Your task to perform on an android device: turn on improve location accuracy Image 0: 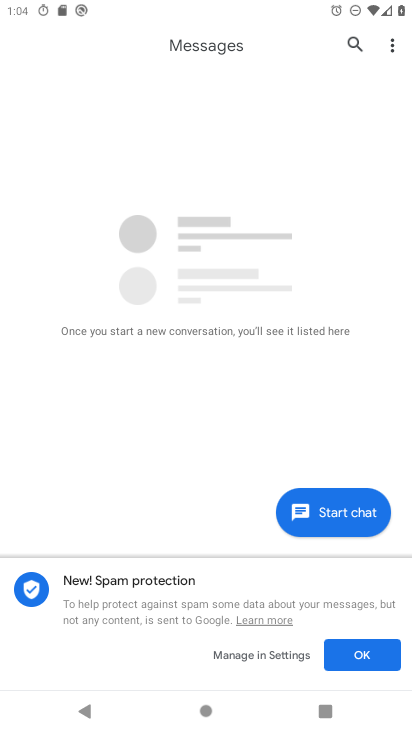
Step 0: press home button
Your task to perform on an android device: turn on improve location accuracy Image 1: 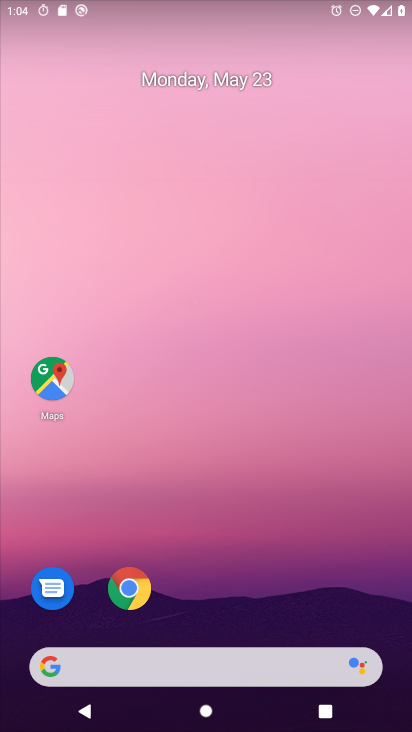
Step 1: drag from (277, 702) to (239, 211)
Your task to perform on an android device: turn on improve location accuracy Image 2: 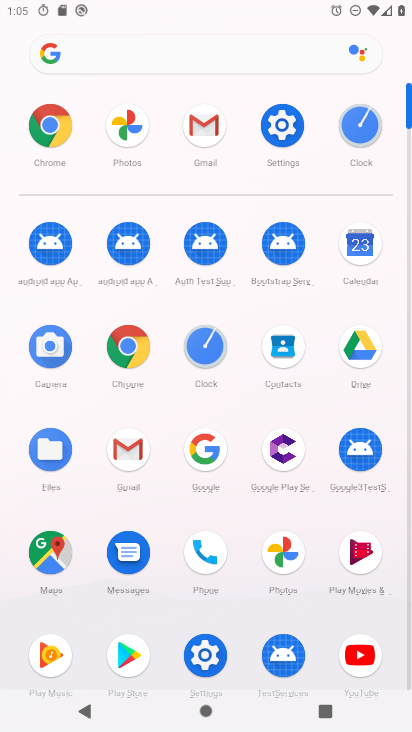
Step 2: click (278, 121)
Your task to perform on an android device: turn on improve location accuracy Image 3: 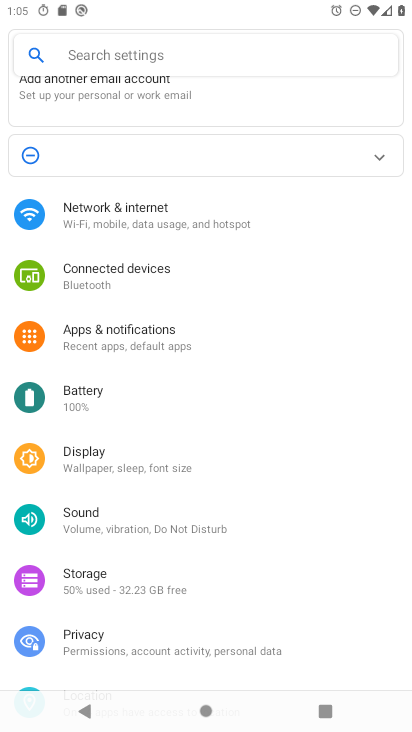
Step 3: click (136, 63)
Your task to perform on an android device: turn on improve location accuracy Image 4: 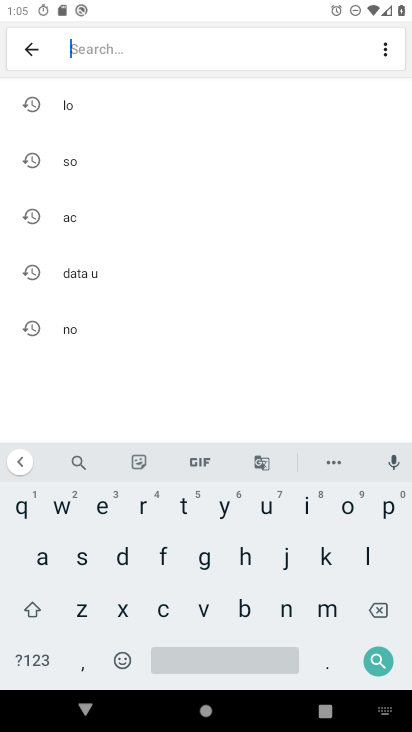
Step 4: click (363, 561)
Your task to perform on an android device: turn on improve location accuracy Image 5: 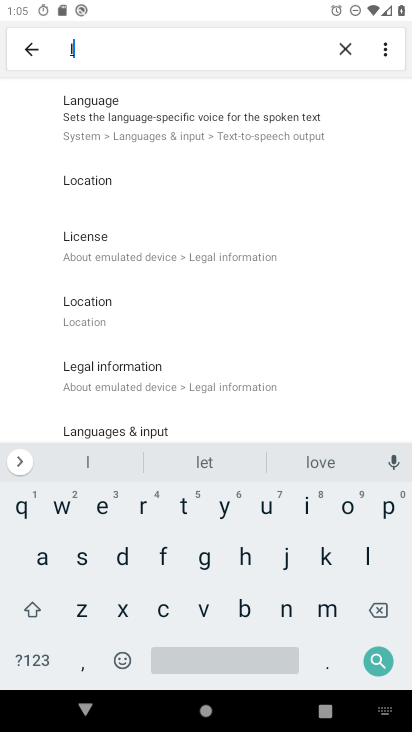
Step 5: click (121, 320)
Your task to perform on an android device: turn on improve location accuracy Image 6: 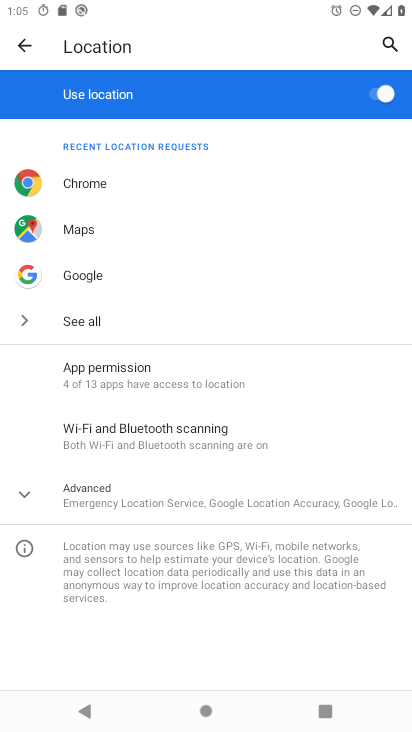
Step 6: click (32, 499)
Your task to perform on an android device: turn on improve location accuracy Image 7: 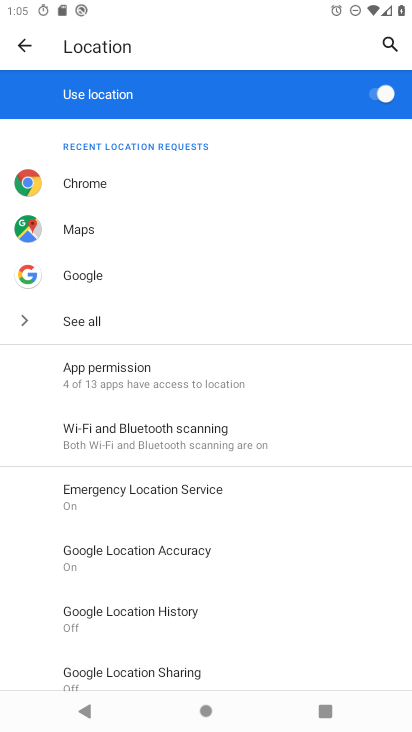
Step 7: click (186, 611)
Your task to perform on an android device: turn on improve location accuracy Image 8: 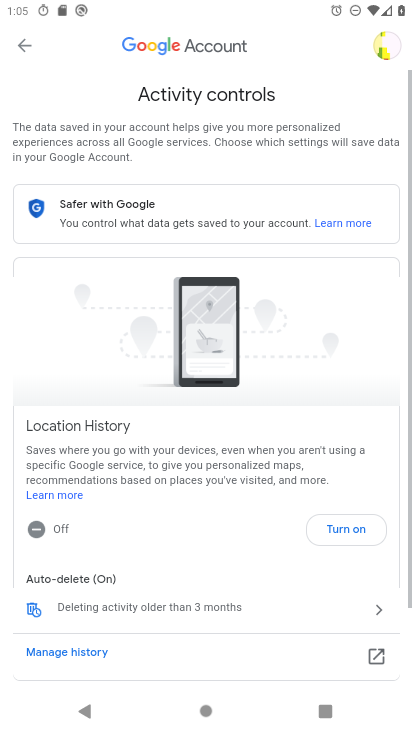
Step 8: click (37, 35)
Your task to perform on an android device: turn on improve location accuracy Image 9: 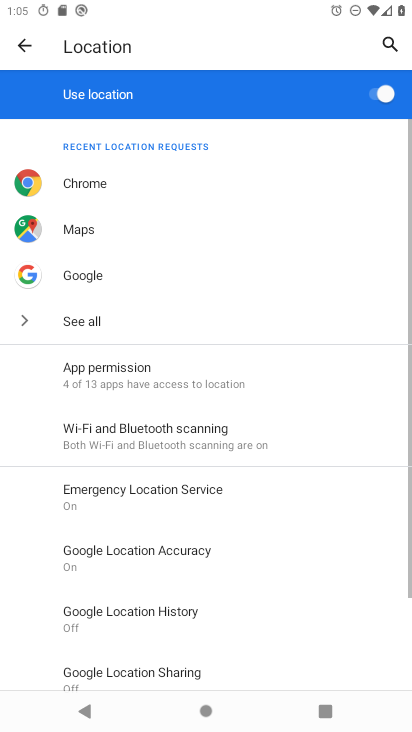
Step 9: click (174, 554)
Your task to perform on an android device: turn on improve location accuracy Image 10: 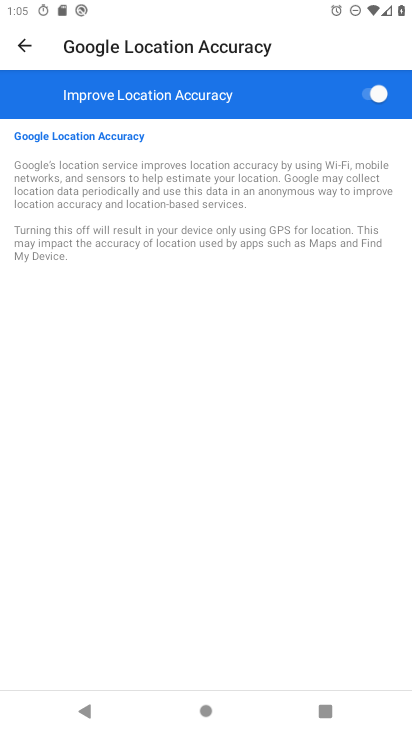
Step 10: task complete